Your task to perform on an android device: toggle priority inbox in the gmail app Image 0: 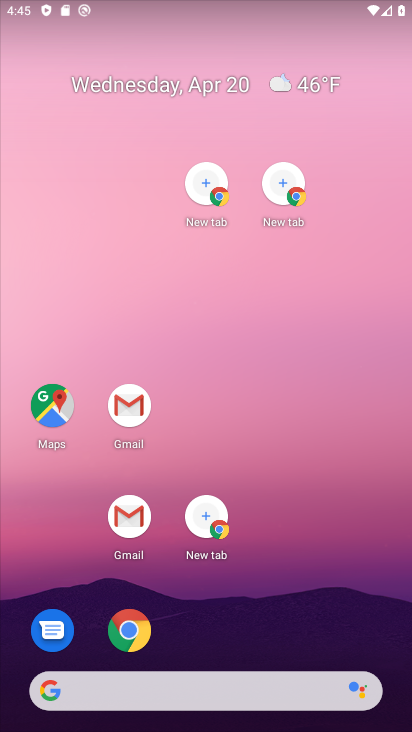
Step 0: drag from (218, 697) to (97, 181)
Your task to perform on an android device: toggle priority inbox in the gmail app Image 1: 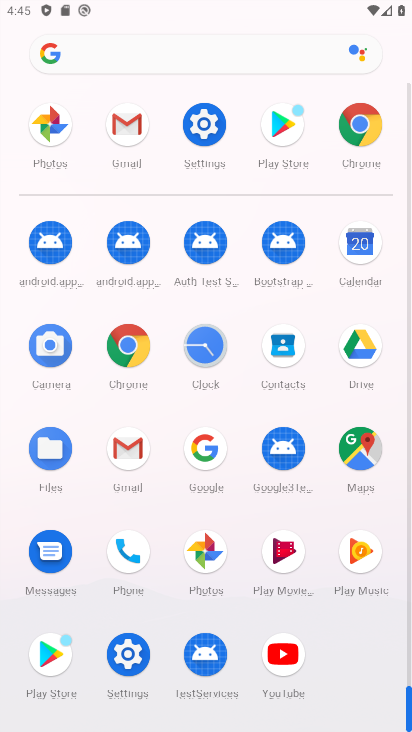
Step 1: click (129, 132)
Your task to perform on an android device: toggle priority inbox in the gmail app Image 2: 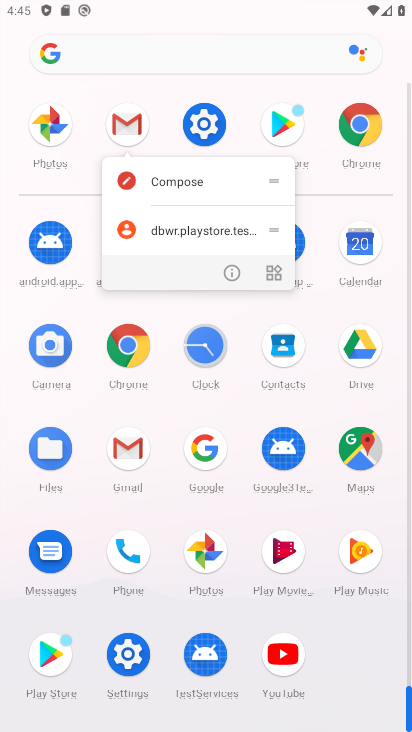
Step 2: click (130, 132)
Your task to perform on an android device: toggle priority inbox in the gmail app Image 3: 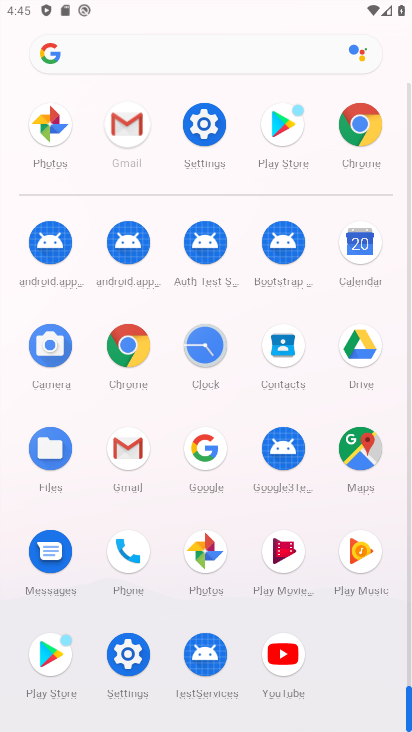
Step 3: click (132, 133)
Your task to perform on an android device: toggle priority inbox in the gmail app Image 4: 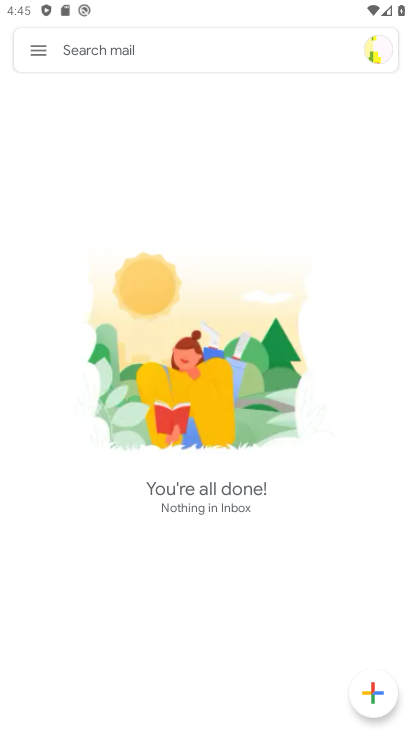
Step 4: click (39, 46)
Your task to perform on an android device: toggle priority inbox in the gmail app Image 5: 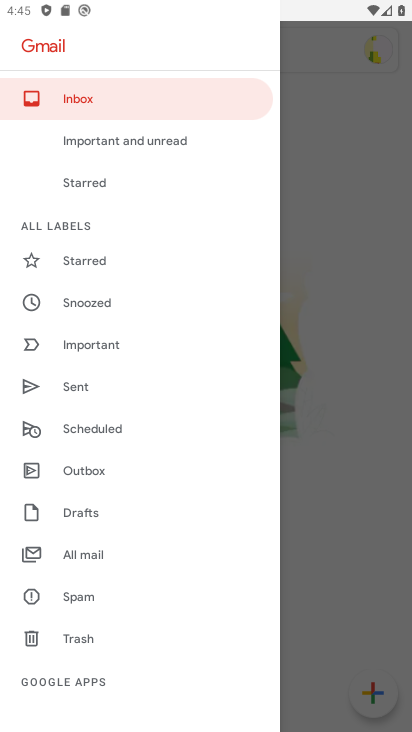
Step 5: drag from (141, 537) to (104, 203)
Your task to perform on an android device: toggle priority inbox in the gmail app Image 6: 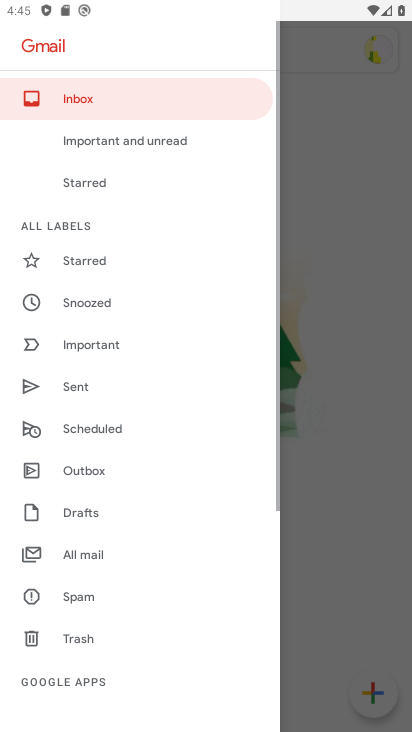
Step 6: drag from (127, 407) to (66, 282)
Your task to perform on an android device: toggle priority inbox in the gmail app Image 7: 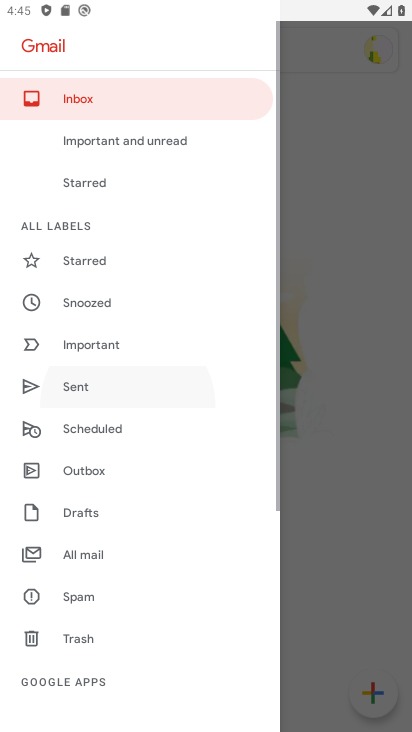
Step 7: drag from (147, 522) to (98, 176)
Your task to perform on an android device: toggle priority inbox in the gmail app Image 8: 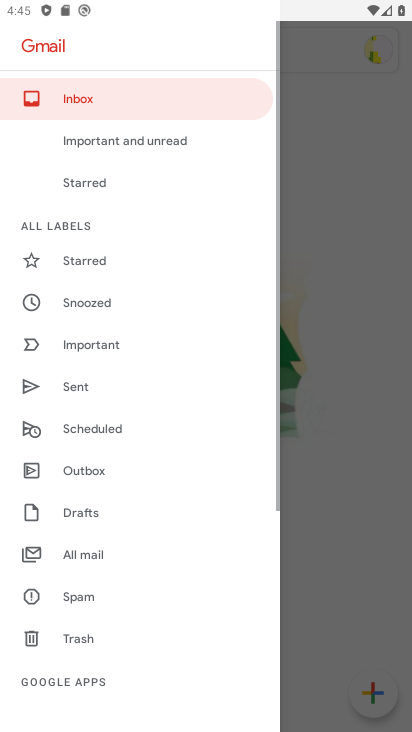
Step 8: drag from (157, 480) to (203, 91)
Your task to perform on an android device: toggle priority inbox in the gmail app Image 9: 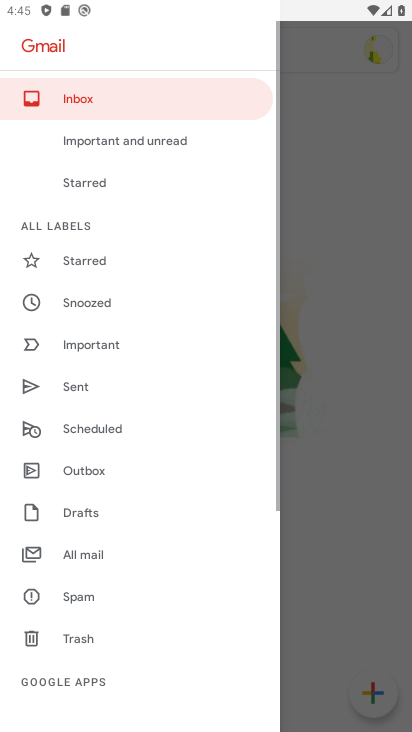
Step 9: drag from (121, 408) to (144, 117)
Your task to perform on an android device: toggle priority inbox in the gmail app Image 10: 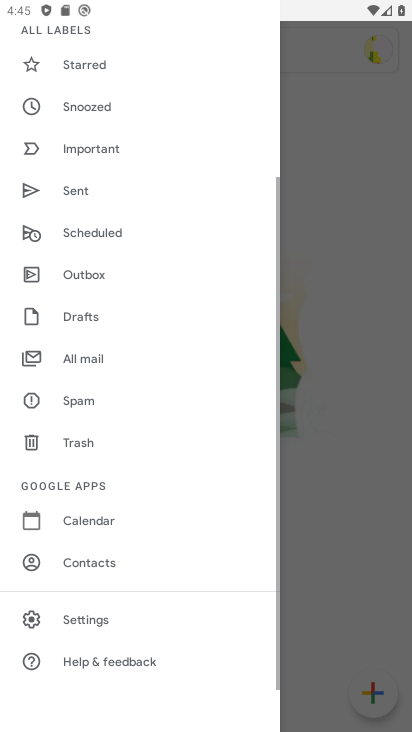
Step 10: drag from (42, 520) to (81, 165)
Your task to perform on an android device: toggle priority inbox in the gmail app Image 11: 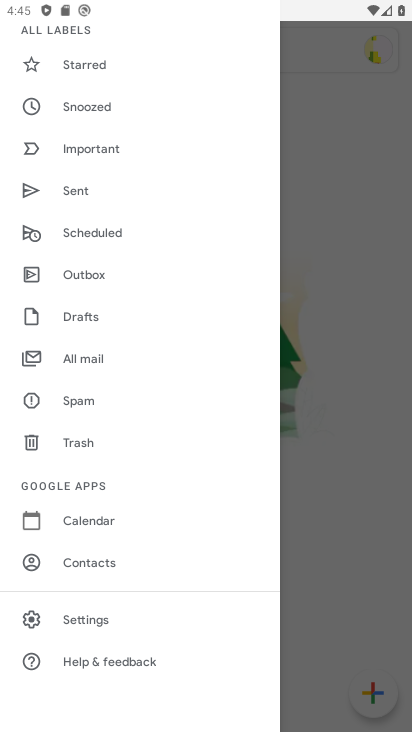
Step 11: click (89, 624)
Your task to perform on an android device: toggle priority inbox in the gmail app Image 12: 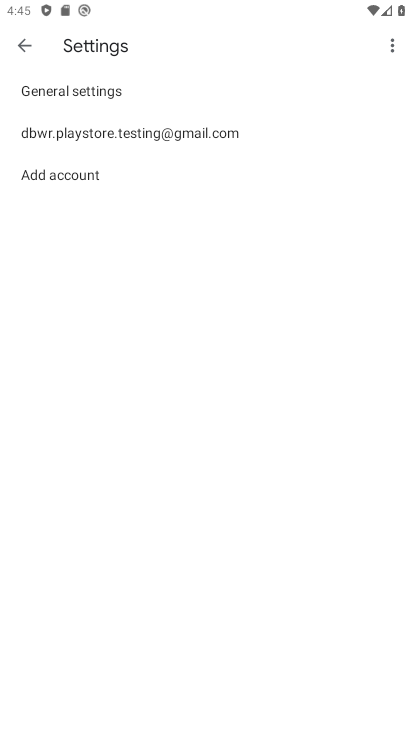
Step 12: click (105, 137)
Your task to perform on an android device: toggle priority inbox in the gmail app Image 13: 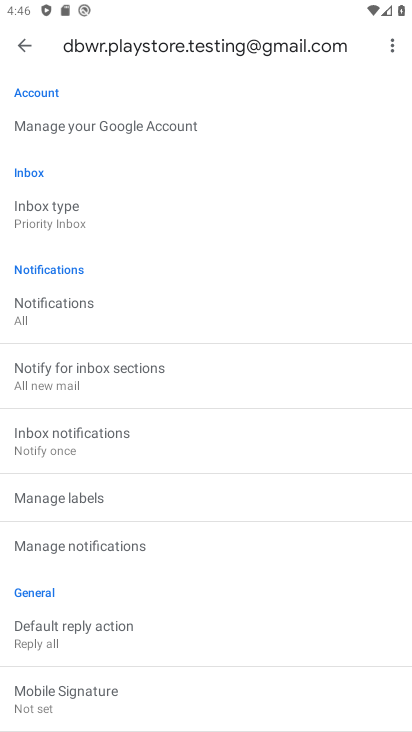
Step 13: click (31, 215)
Your task to perform on an android device: toggle priority inbox in the gmail app Image 14: 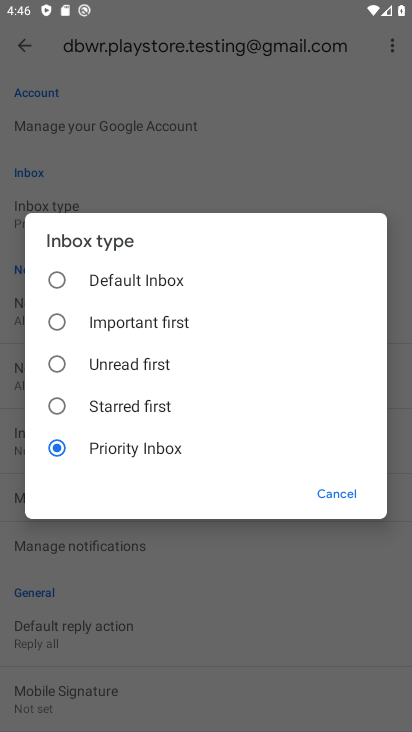
Step 14: task complete